Your task to perform on an android device: What's on my calendar tomorrow? Image 0: 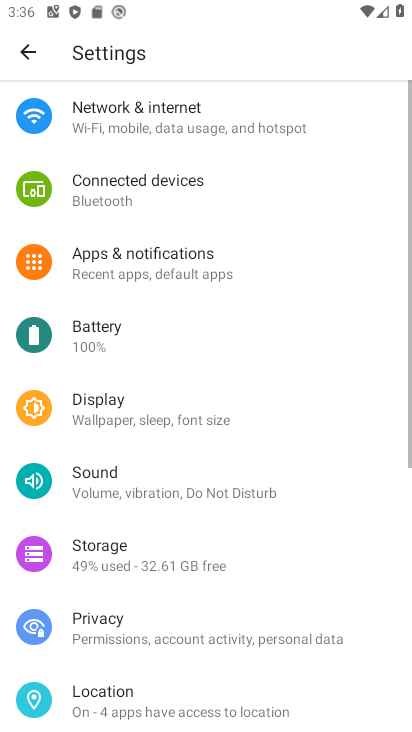
Step 0: press home button
Your task to perform on an android device: What's on my calendar tomorrow? Image 1: 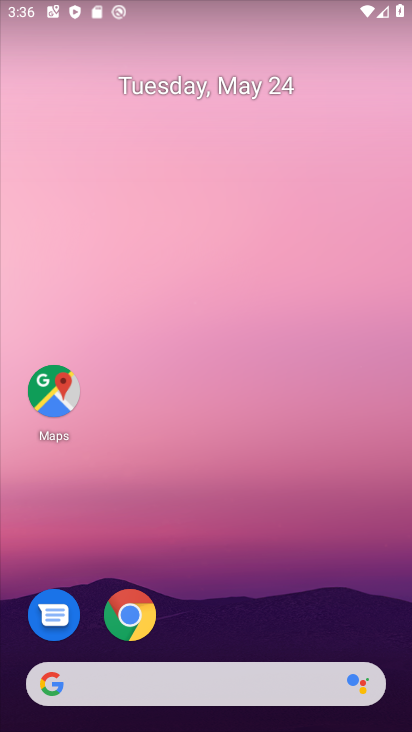
Step 1: drag from (215, 727) to (204, 48)
Your task to perform on an android device: What's on my calendar tomorrow? Image 2: 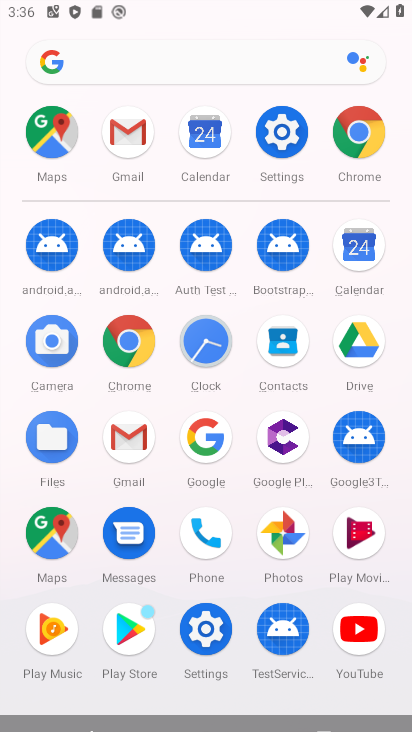
Step 2: click (351, 251)
Your task to perform on an android device: What's on my calendar tomorrow? Image 3: 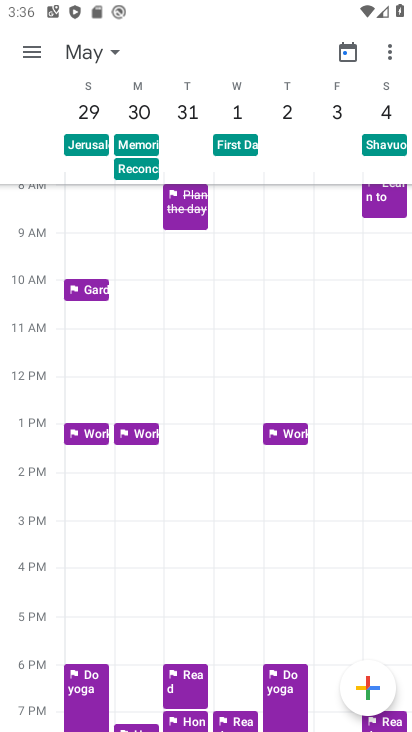
Step 3: click (115, 50)
Your task to perform on an android device: What's on my calendar tomorrow? Image 4: 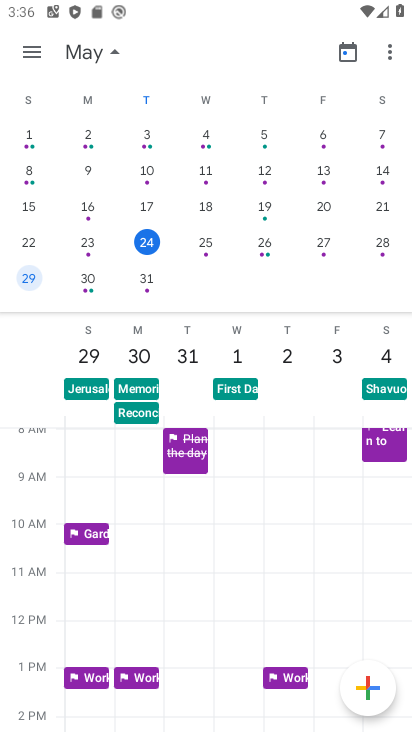
Step 4: click (202, 240)
Your task to perform on an android device: What's on my calendar tomorrow? Image 5: 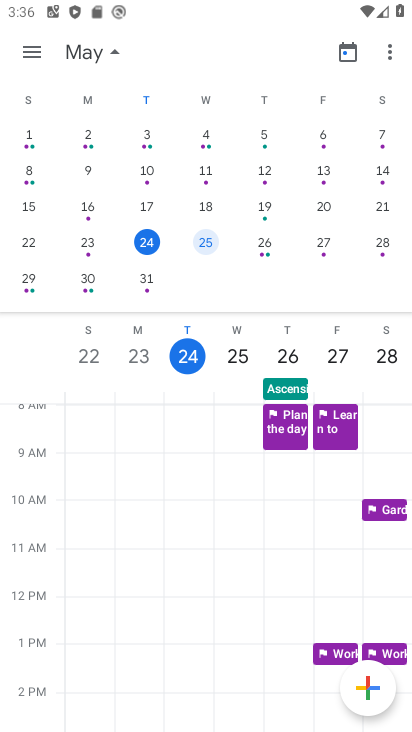
Step 5: click (114, 53)
Your task to perform on an android device: What's on my calendar tomorrow? Image 6: 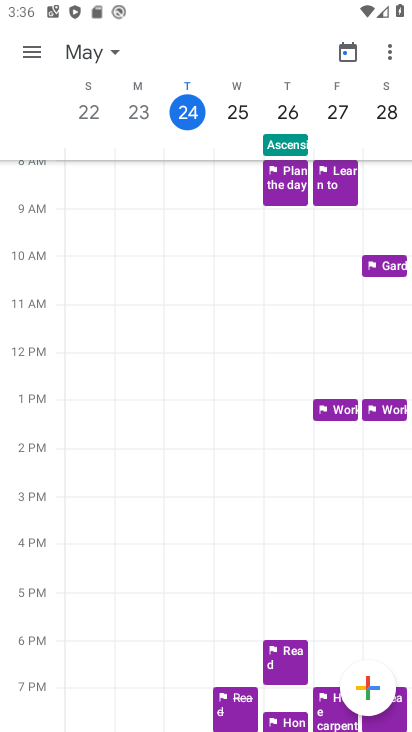
Step 6: task complete